Your task to perform on an android device: Search for sushi restaurants on Maps Image 0: 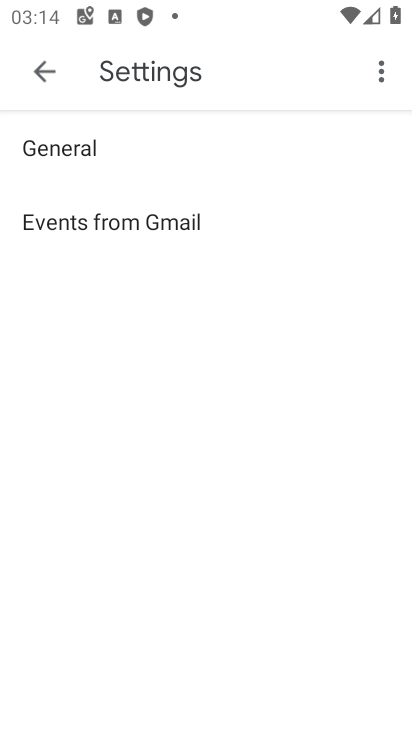
Step 0: press home button
Your task to perform on an android device: Search for sushi restaurants on Maps Image 1: 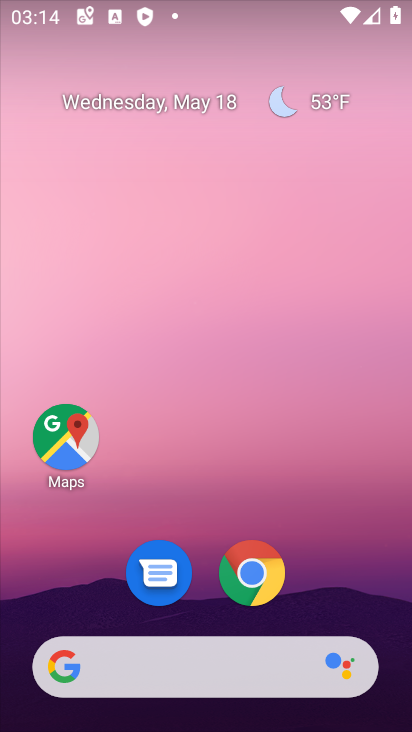
Step 1: click (79, 439)
Your task to perform on an android device: Search for sushi restaurants on Maps Image 2: 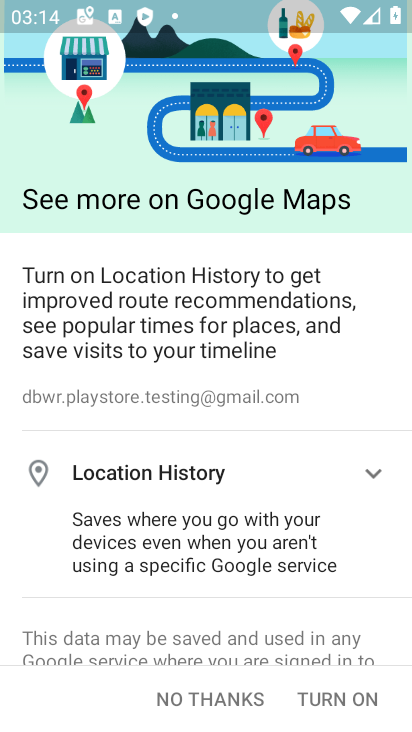
Step 2: click (327, 699)
Your task to perform on an android device: Search for sushi restaurants on Maps Image 3: 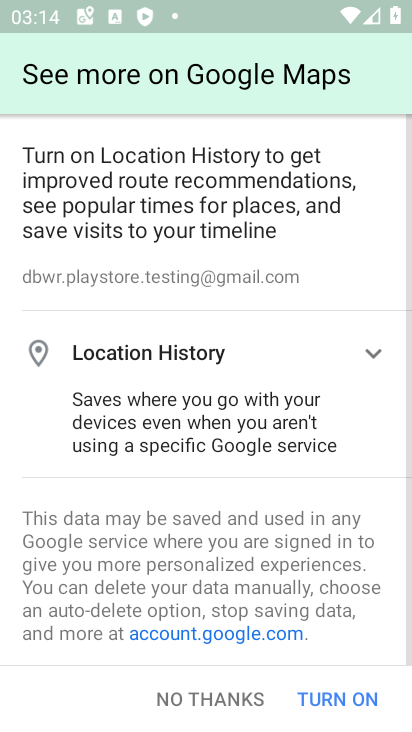
Step 3: click (328, 697)
Your task to perform on an android device: Search for sushi restaurants on Maps Image 4: 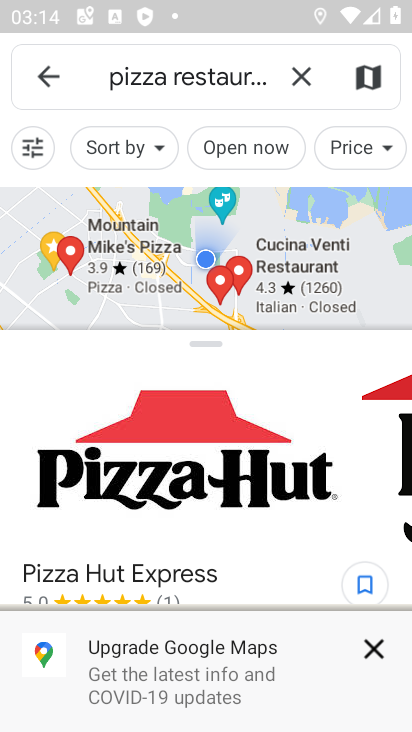
Step 4: click (289, 71)
Your task to perform on an android device: Search for sushi restaurants on Maps Image 5: 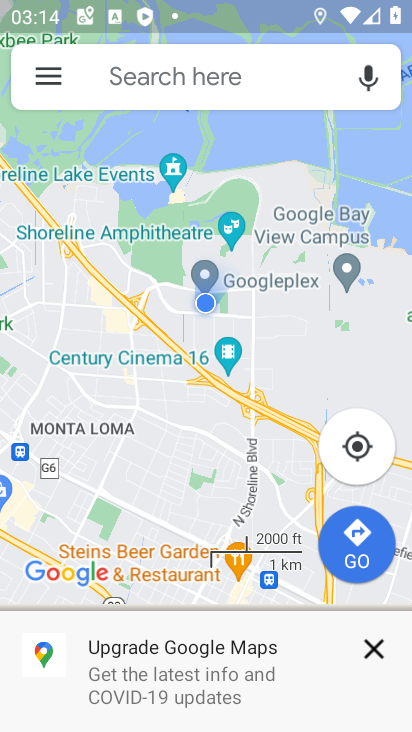
Step 5: click (210, 77)
Your task to perform on an android device: Search for sushi restaurants on Maps Image 6: 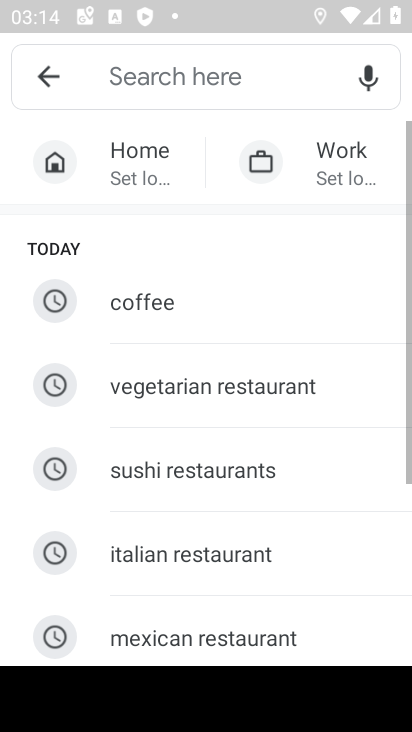
Step 6: click (177, 476)
Your task to perform on an android device: Search for sushi restaurants on Maps Image 7: 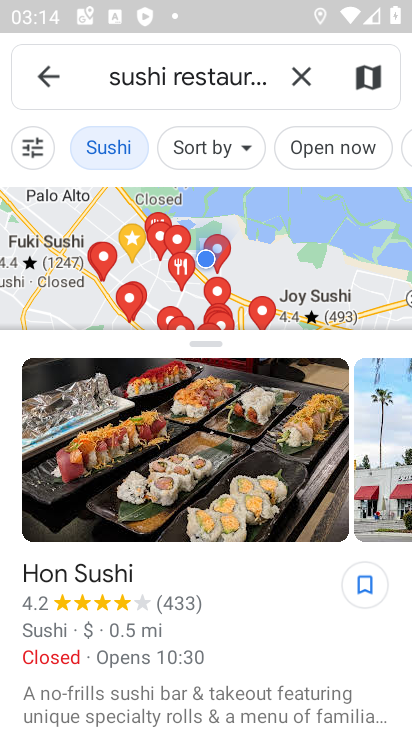
Step 7: task complete